Your task to perform on an android device: Go to wifi settings Image 0: 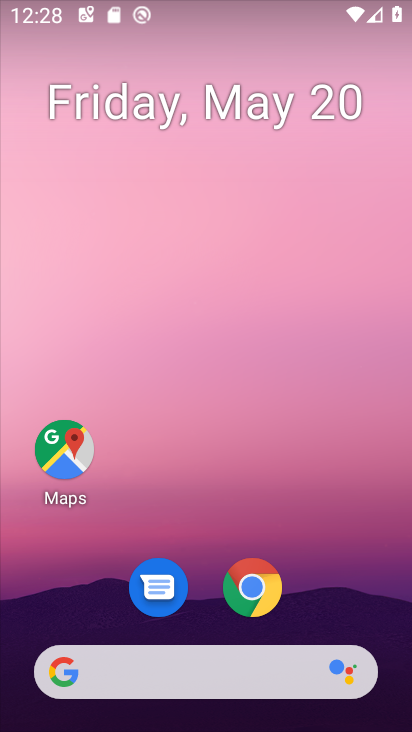
Step 0: drag from (370, 562) to (364, 130)
Your task to perform on an android device: Go to wifi settings Image 1: 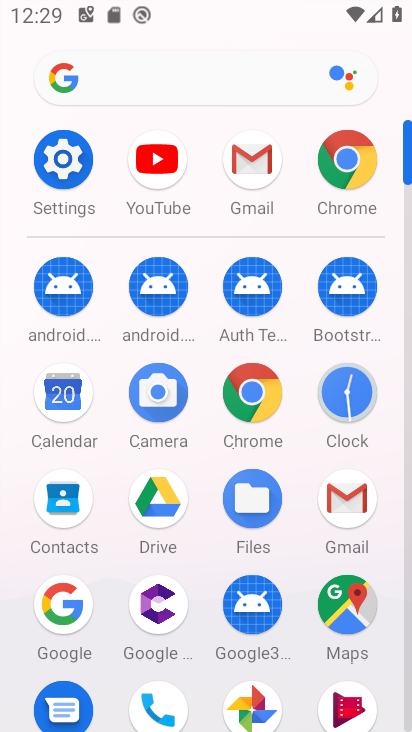
Step 1: click (73, 170)
Your task to perform on an android device: Go to wifi settings Image 2: 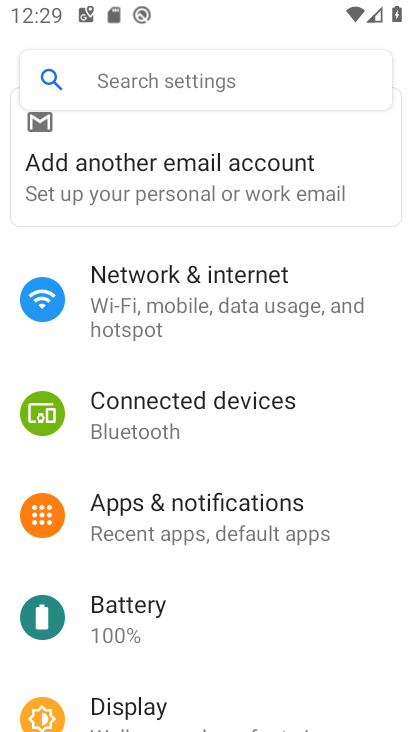
Step 2: drag from (354, 567) to (368, 468)
Your task to perform on an android device: Go to wifi settings Image 3: 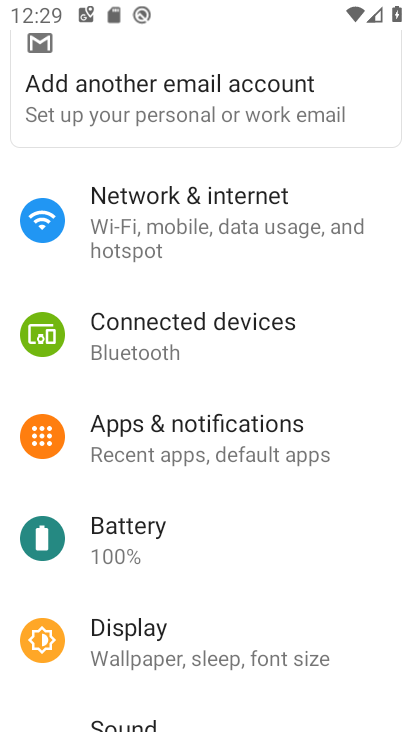
Step 3: drag from (358, 606) to (362, 514)
Your task to perform on an android device: Go to wifi settings Image 4: 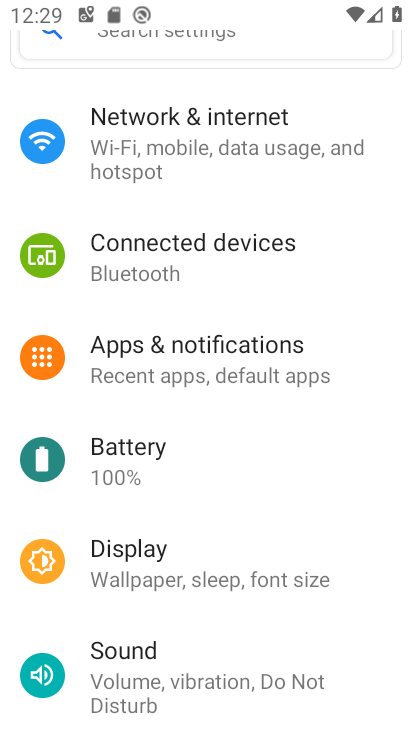
Step 4: click (372, 504)
Your task to perform on an android device: Go to wifi settings Image 5: 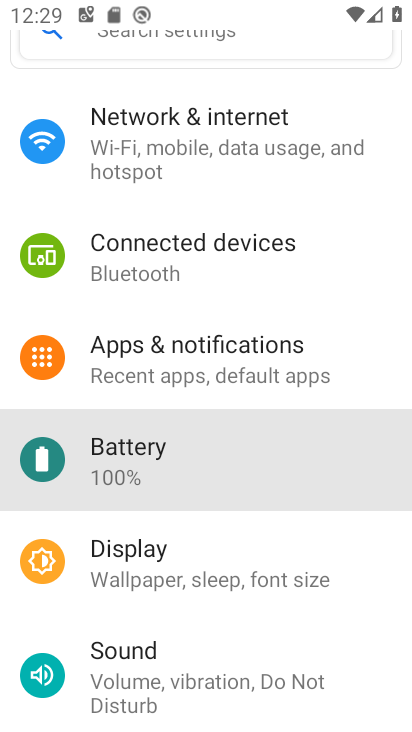
Step 5: drag from (364, 341) to (354, 488)
Your task to perform on an android device: Go to wifi settings Image 6: 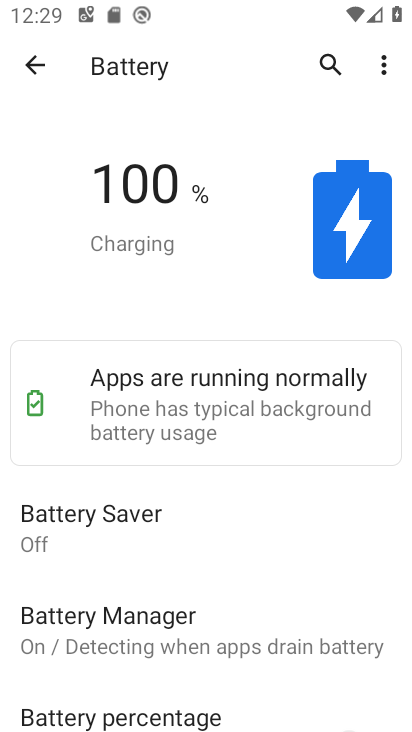
Step 6: click (44, 66)
Your task to perform on an android device: Go to wifi settings Image 7: 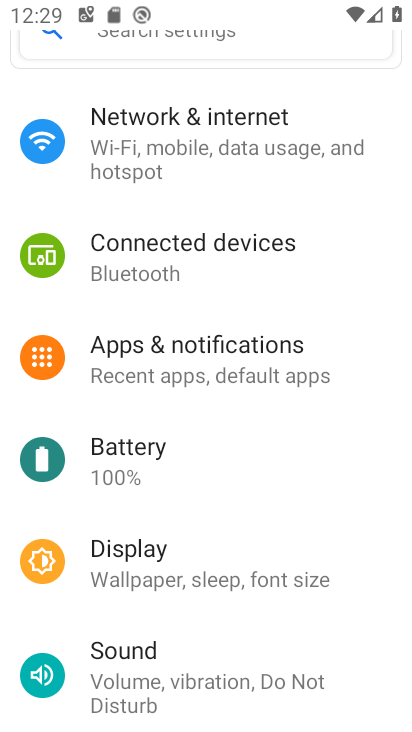
Step 7: drag from (374, 303) to (373, 466)
Your task to perform on an android device: Go to wifi settings Image 8: 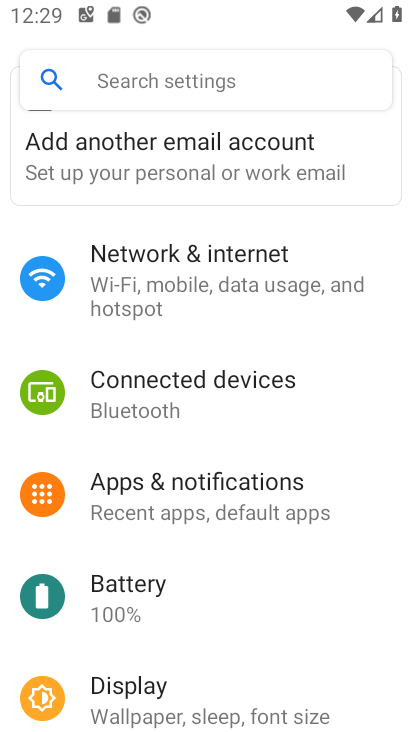
Step 8: drag from (360, 343) to (353, 425)
Your task to perform on an android device: Go to wifi settings Image 9: 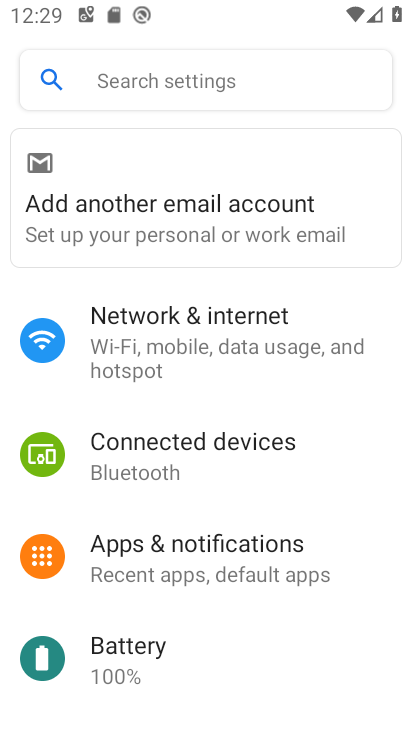
Step 9: click (316, 361)
Your task to perform on an android device: Go to wifi settings Image 10: 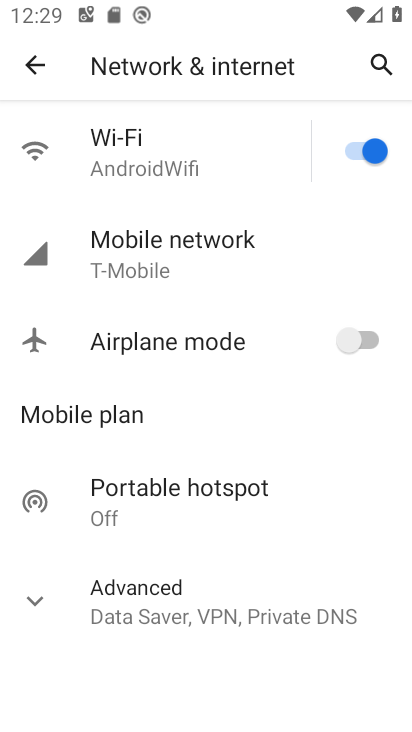
Step 10: click (207, 140)
Your task to perform on an android device: Go to wifi settings Image 11: 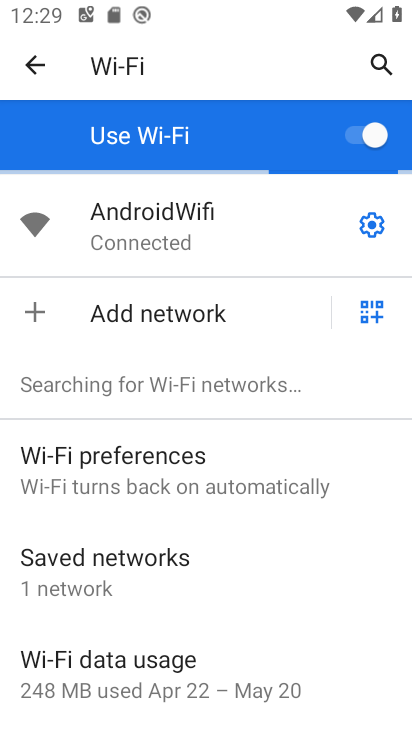
Step 11: task complete